Your task to perform on an android device: set the timer Image 0: 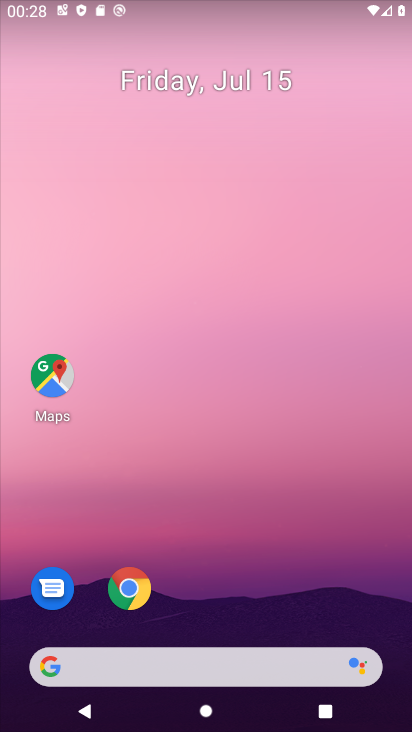
Step 0: drag from (226, 503) to (282, 4)
Your task to perform on an android device: set the timer Image 1: 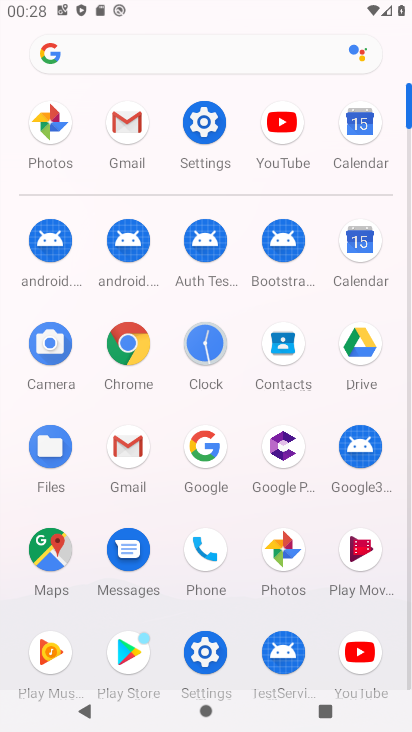
Step 1: click (213, 338)
Your task to perform on an android device: set the timer Image 2: 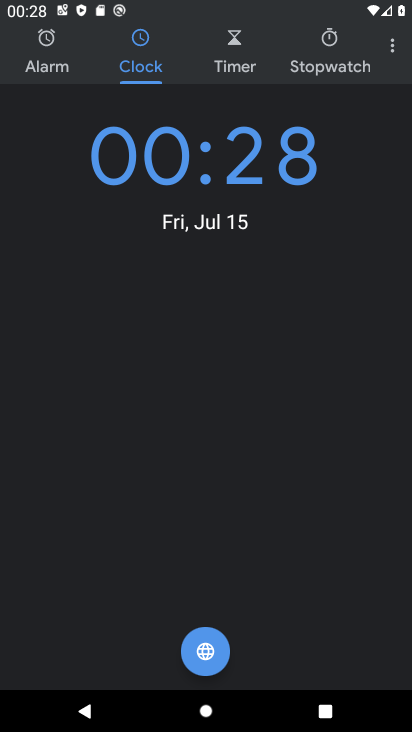
Step 2: click (239, 39)
Your task to perform on an android device: set the timer Image 3: 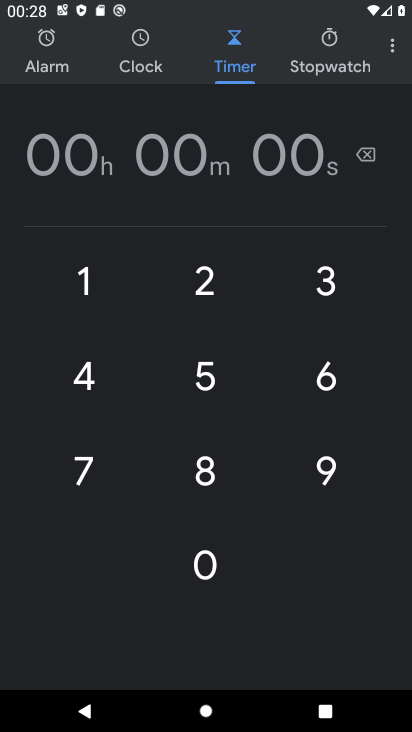
Step 3: click (199, 278)
Your task to perform on an android device: set the timer Image 4: 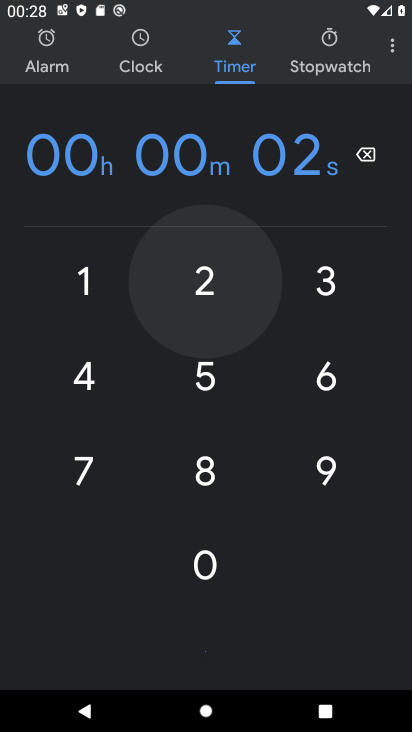
Step 4: click (327, 286)
Your task to perform on an android device: set the timer Image 5: 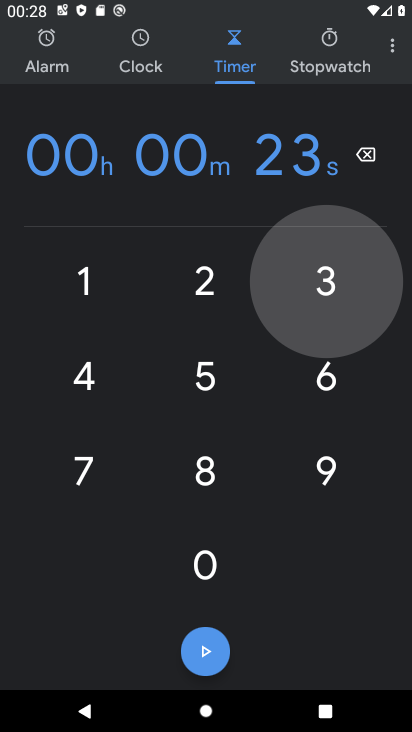
Step 5: click (203, 364)
Your task to perform on an android device: set the timer Image 6: 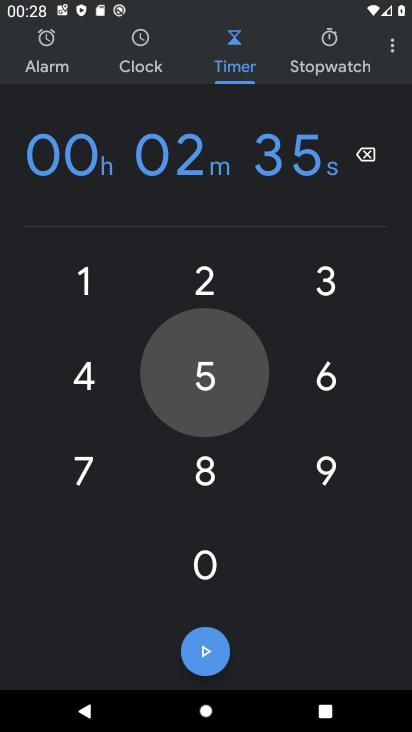
Step 6: click (339, 370)
Your task to perform on an android device: set the timer Image 7: 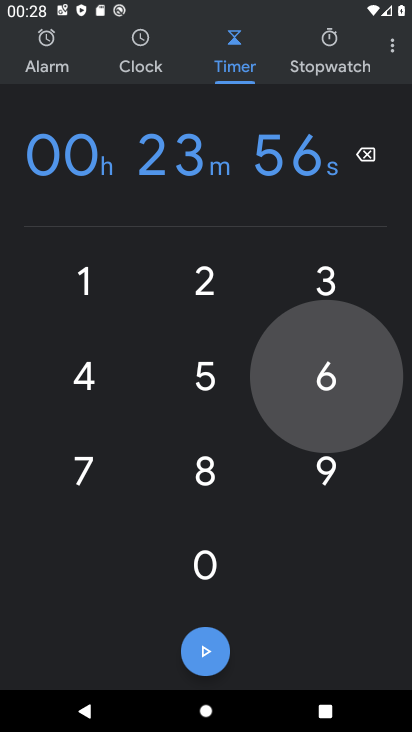
Step 7: click (71, 376)
Your task to perform on an android device: set the timer Image 8: 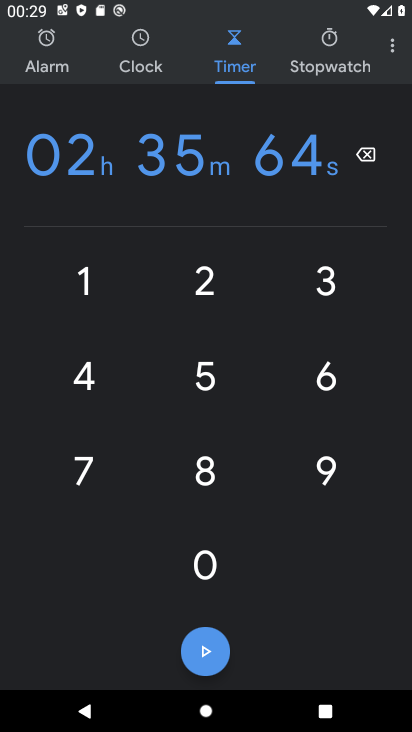
Step 8: click (196, 657)
Your task to perform on an android device: set the timer Image 9: 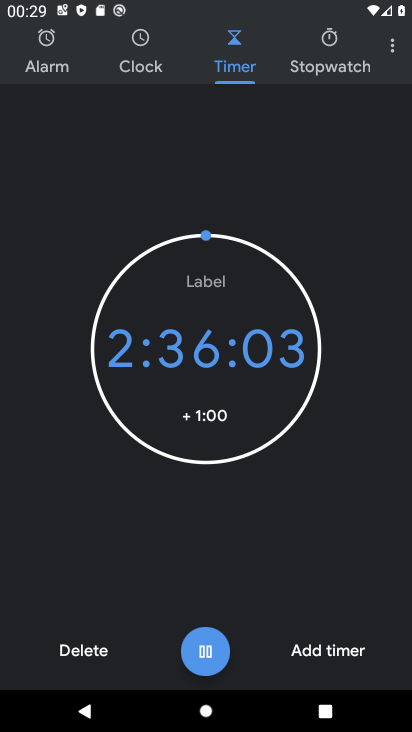
Step 9: task complete